Your task to perform on an android device: see tabs open on other devices in the chrome app Image 0: 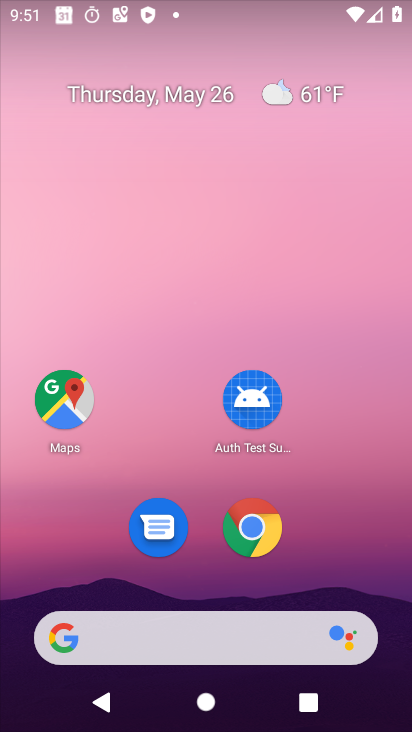
Step 0: drag from (343, 500) to (373, 50)
Your task to perform on an android device: see tabs open on other devices in the chrome app Image 1: 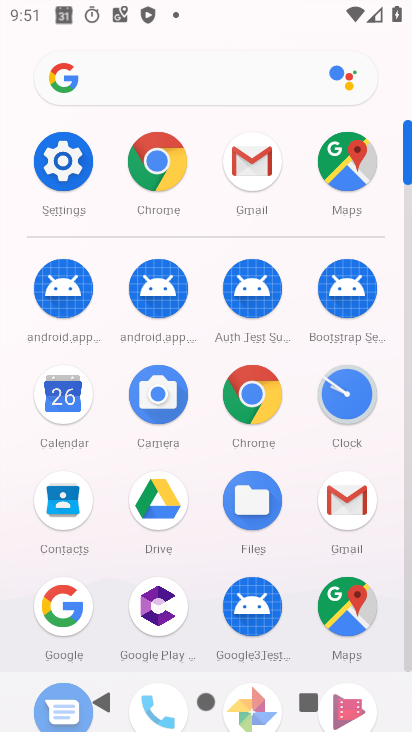
Step 1: click (178, 159)
Your task to perform on an android device: see tabs open on other devices in the chrome app Image 2: 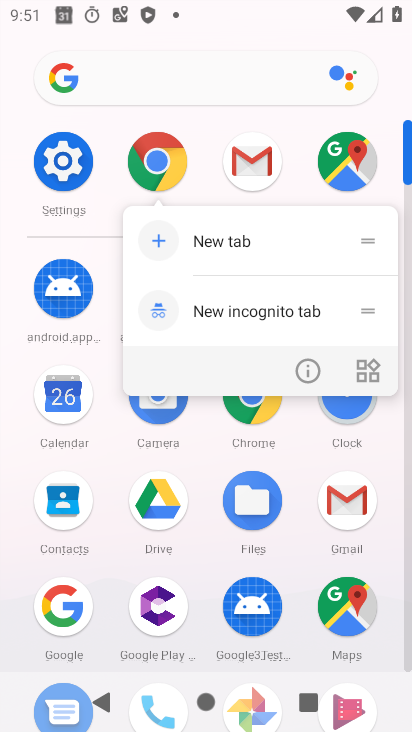
Step 2: click (178, 159)
Your task to perform on an android device: see tabs open on other devices in the chrome app Image 3: 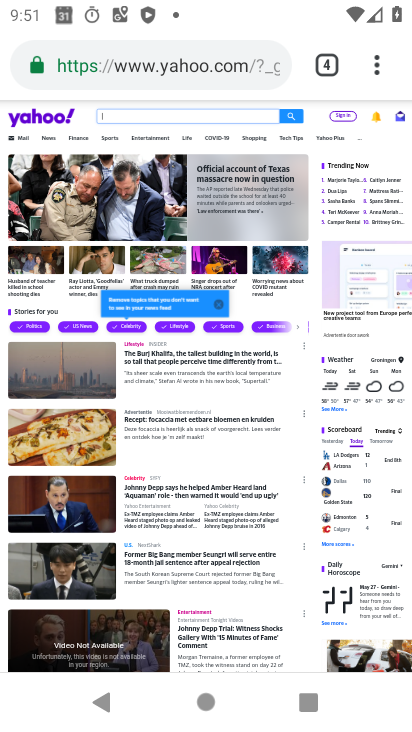
Step 3: task complete